Your task to perform on an android device: check out phone information Image 0: 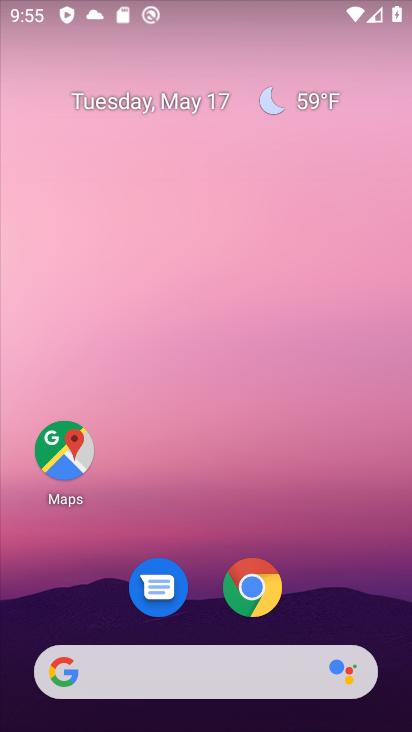
Step 0: drag from (230, 508) to (222, 329)
Your task to perform on an android device: check out phone information Image 1: 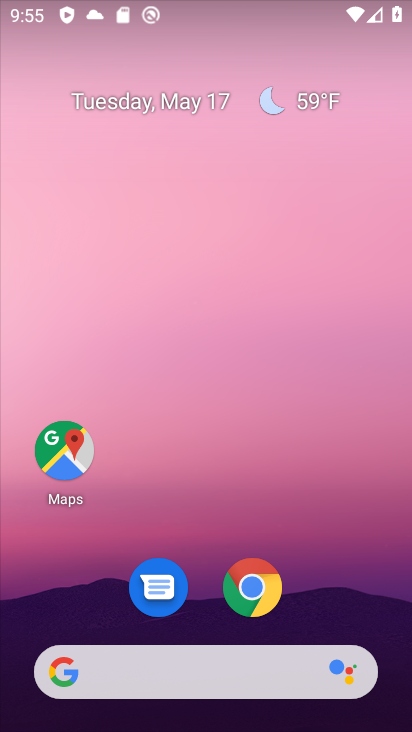
Step 1: drag from (321, 611) to (305, 441)
Your task to perform on an android device: check out phone information Image 2: 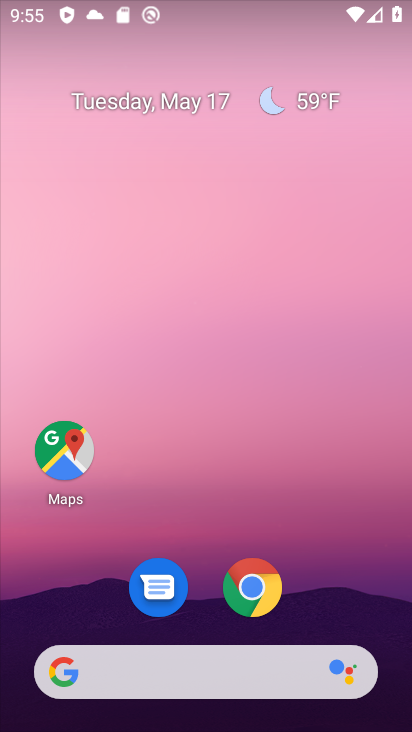
Step 2: drag from (313, 580) to (295, 252)
Your task to perform on an android device: check out phone information Image 3: 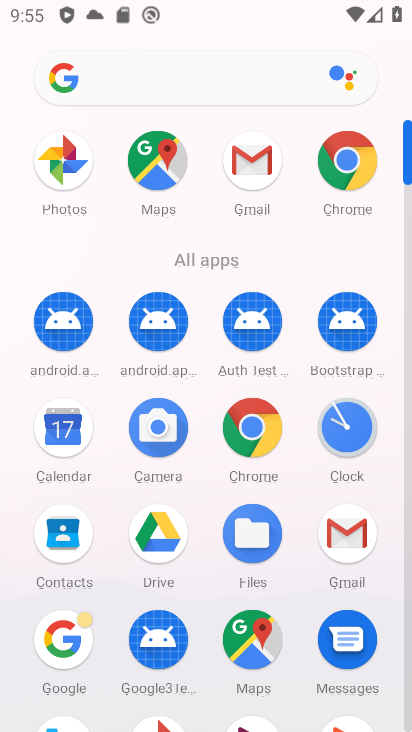
Step 3: drag from (213, 588) to (208, 346)
Your task to perform on an android device: check out phone information Image 4: 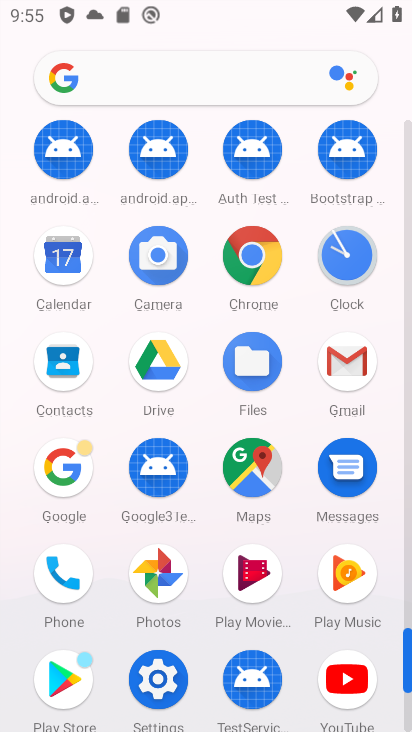
Step 4: click (151, 684)
Your task to perform on an android device: check out phone information Image 5: 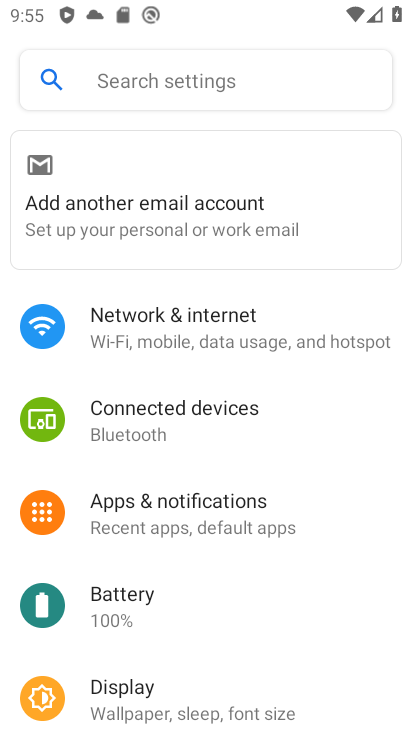
Step 5: drag from (218, 640) to (212, 428)
Your task to perform on an android device: check out phone information Image 6: 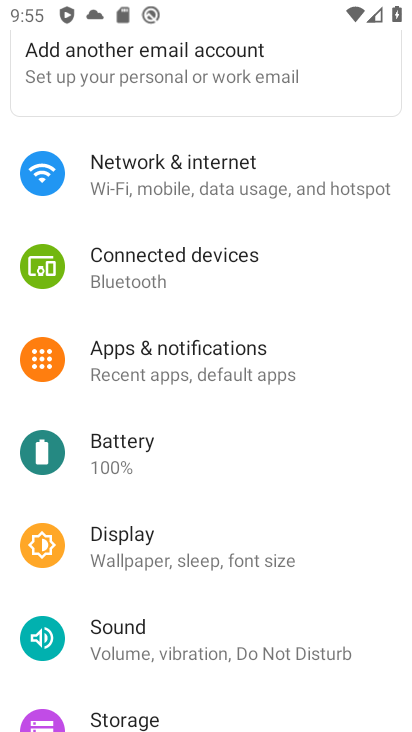
Step 6: drag from (265, 700) to (265, 424)
Your task to perform on an android device: check out phone information Image 7: 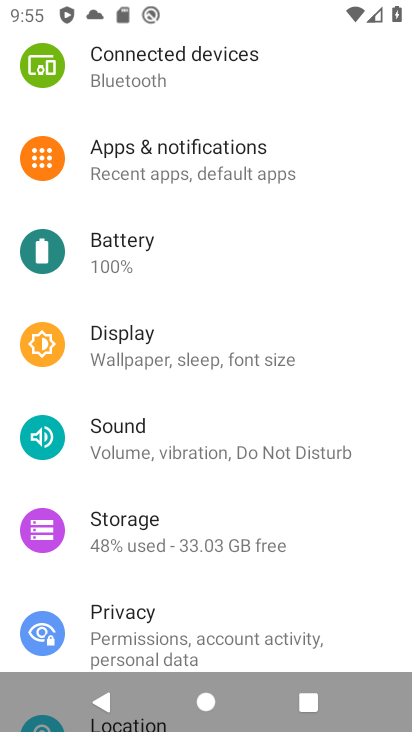
Step 7: drag from (300, 605) to (296, 149)
Your task to perform on an android device: check out phone information Image 8: 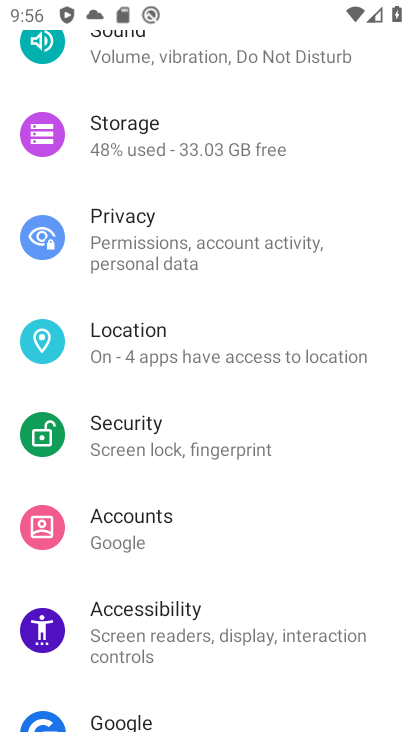
Step 8: drag from (303, 629) to (295, 340)
Your task to perform on an android device: check out phone information Image 9: 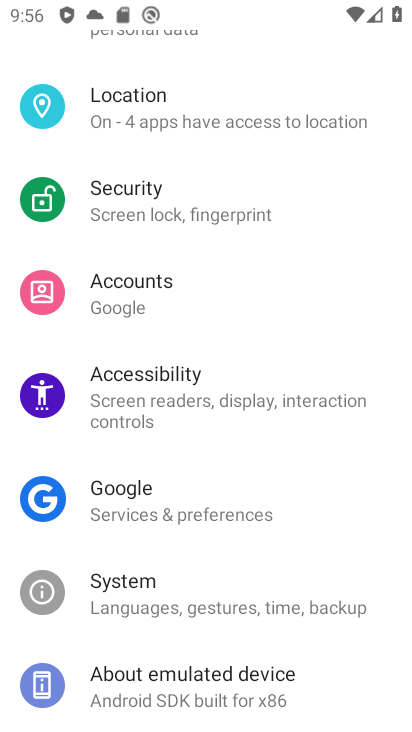
Step 9: click (201, 685)
Your task to perform on an android device: check out phone information Image 10: 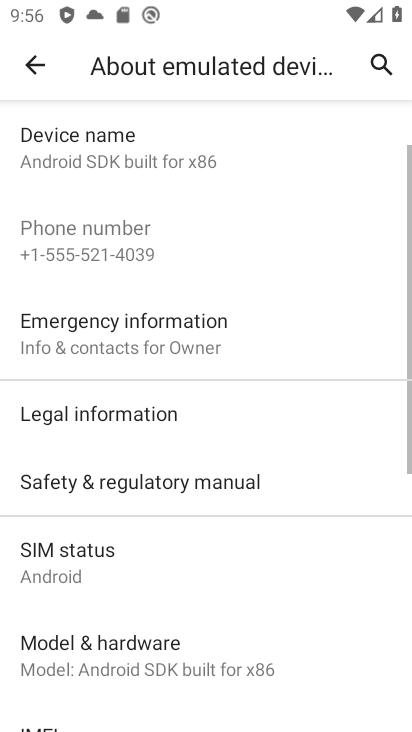
Step 10: drag from (268, 581) to (235, 369)
Your task to perform on an android device: check out phone information Image 11: 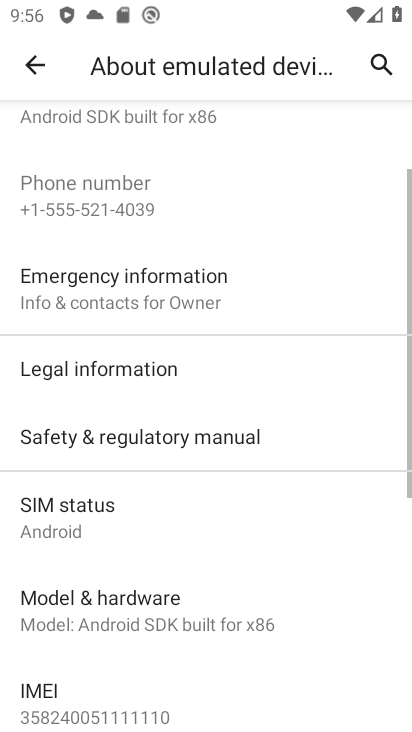
Step 11: click (142, 605)
Your task to perform on an android device: check out phone information Image 12: 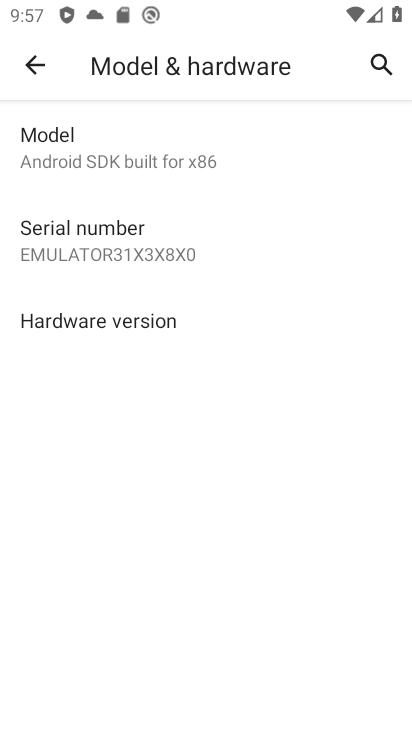
Step 12: task complete